Your task to perform on an android device: Go to network settings Image 0: 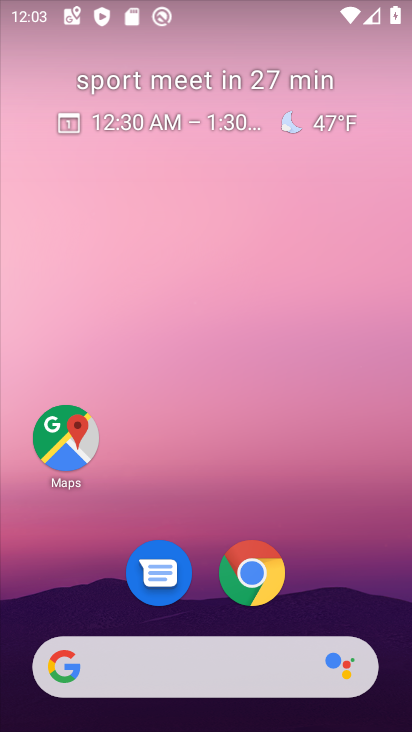
Step 0: drag from (207, 556) to (207, 363)
Your task to perform on an android device: Go to network settings Image 1: 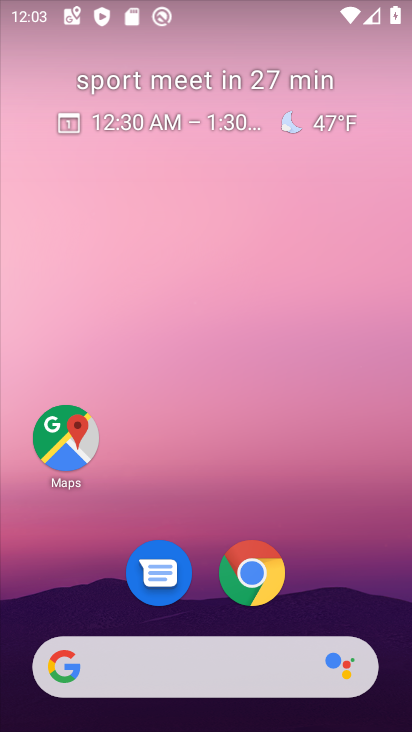
Step 1: drag from (193, 614) to (205, 376)
Your task to perform on an android device: Go to network settings Image 2: 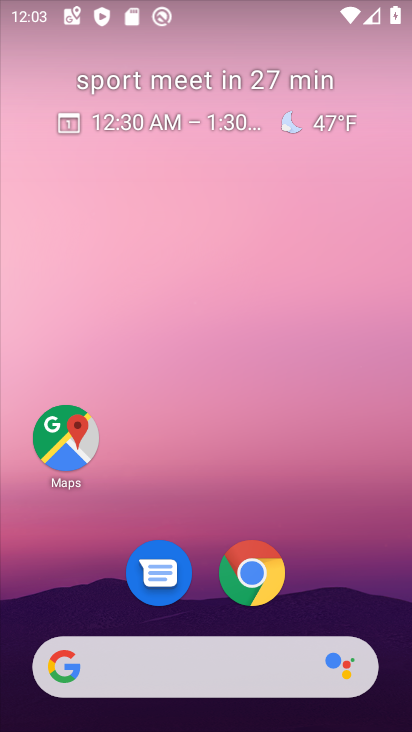
Step 2: drag from (240, 447) to (301, 109)
Your task to perform on an android device: Go to network settings Image 3: 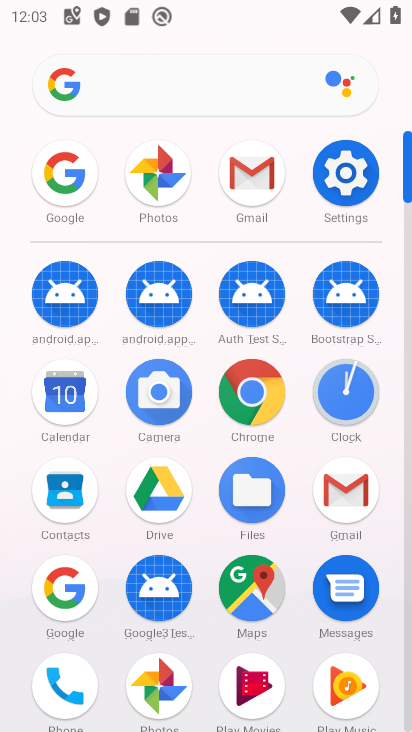
Step 3: click (348, 157)
Your task to perform on an android device: Go to network settings Image 4: 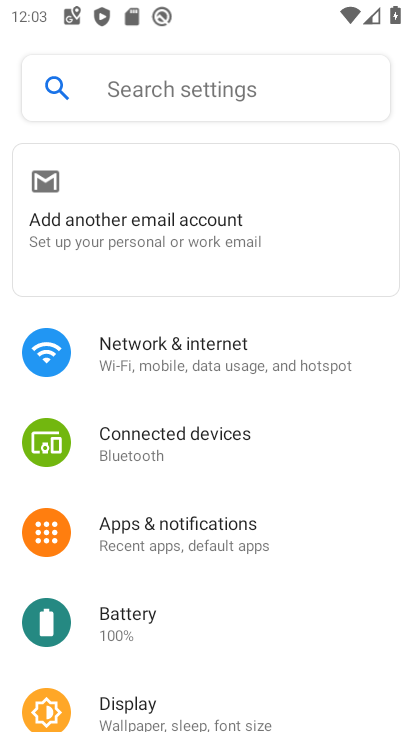
Step 4: click (203, 345)
Your task to perform on an android device: Go to network settings Image 5: 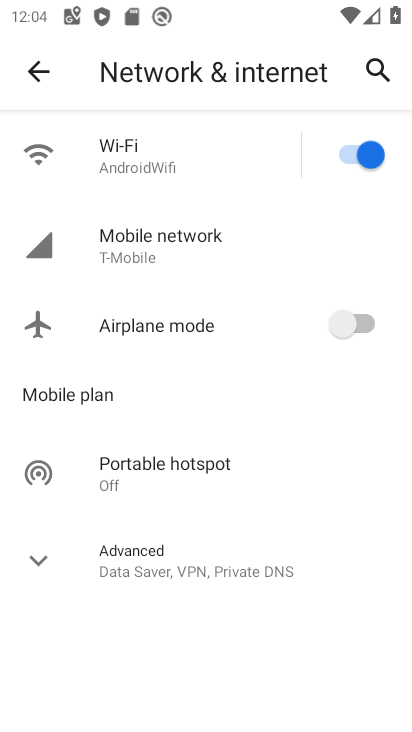
Step 5: click (177, 249)
Your task to perform on an android device: Go to network settings Image 6: 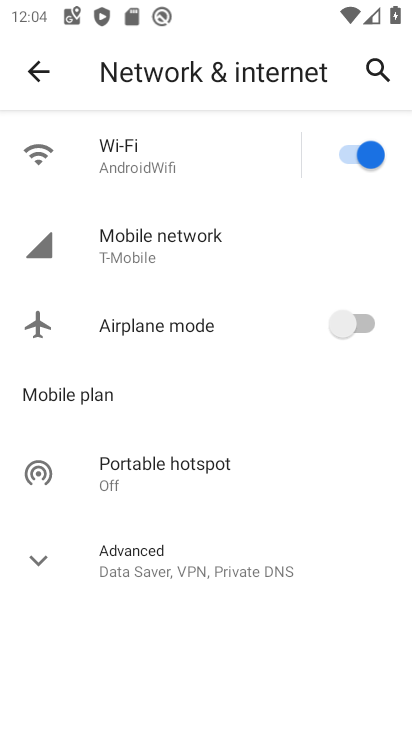
Step 6: task complete